Your task to perform on an android device: How do I get to the nearest electronics store? Image 0: 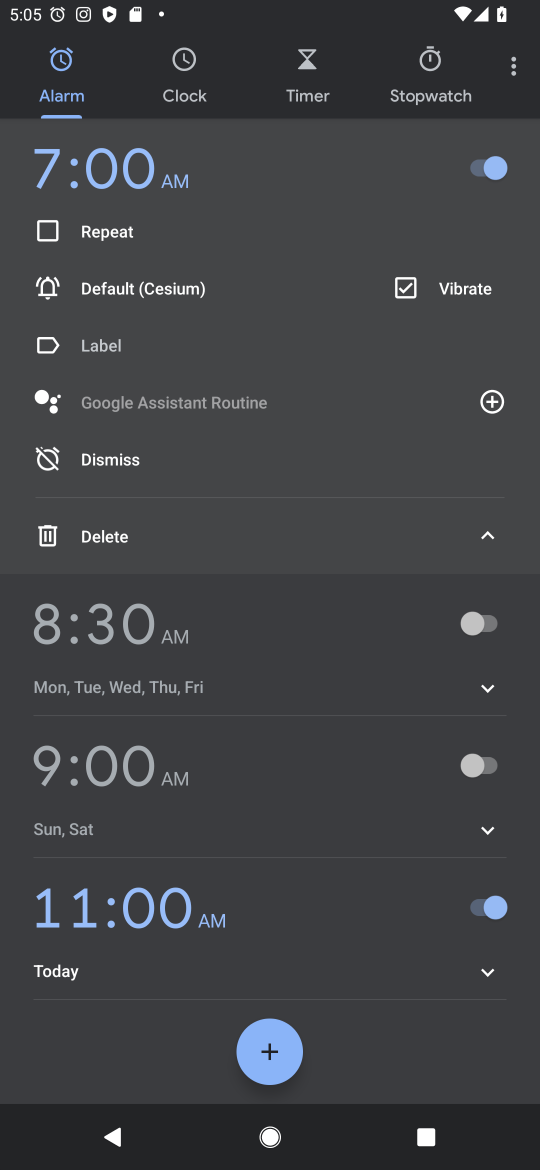
Step 0: press home button
Your task to perform on an android device: How do I get to the nearest electronics store? Image 1: 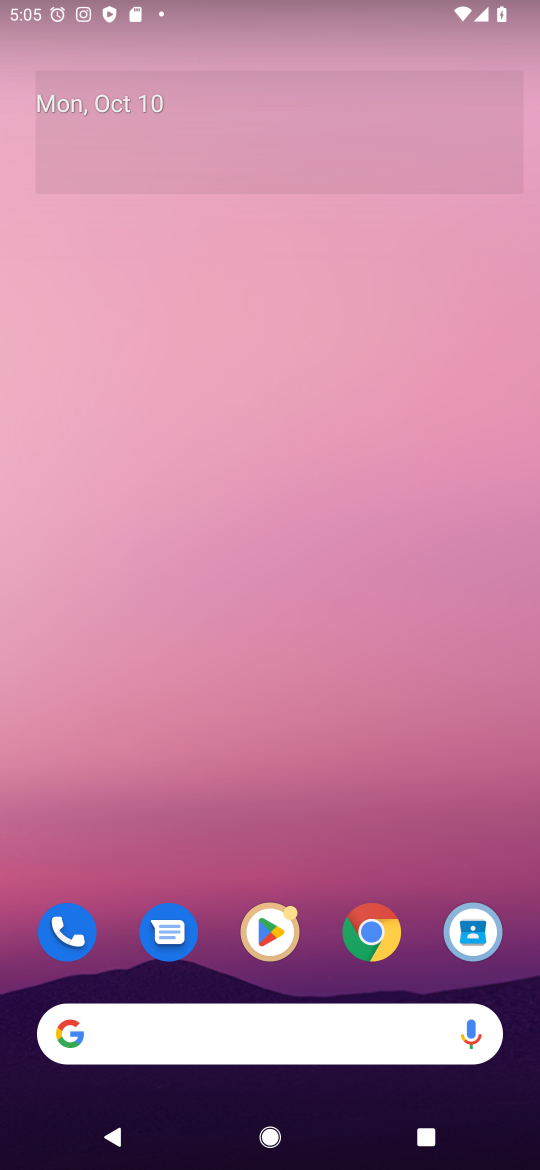
Step 1: click (314, 1026)
Your task to perform on an android device: How do I get to the nearest electronics store? Image 2: 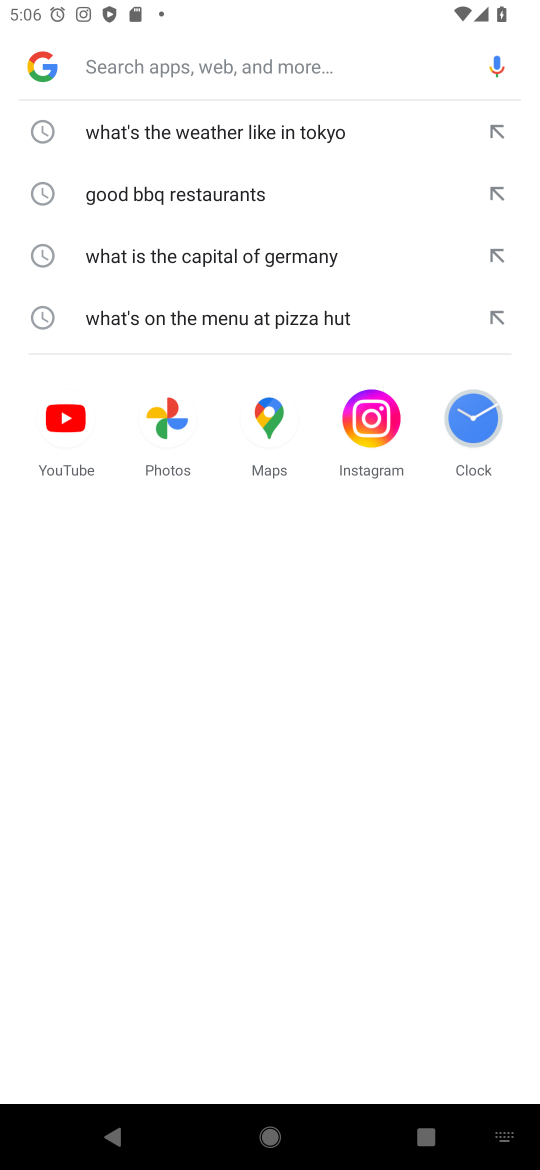
Step 2: press enter
Your task to perform on an android device: How do I get to the nearest electronics store? Image 3: 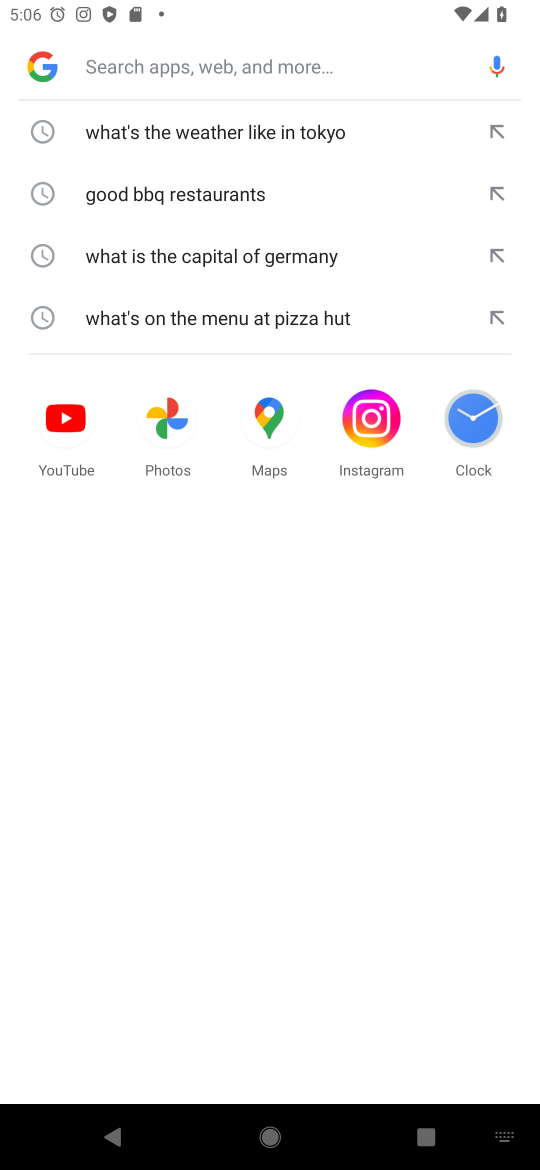
Step 3: type "How do I get to the nearest electronics store"
Your task to perform on an android device: How do I get to the nearest electronics store? Image 4: 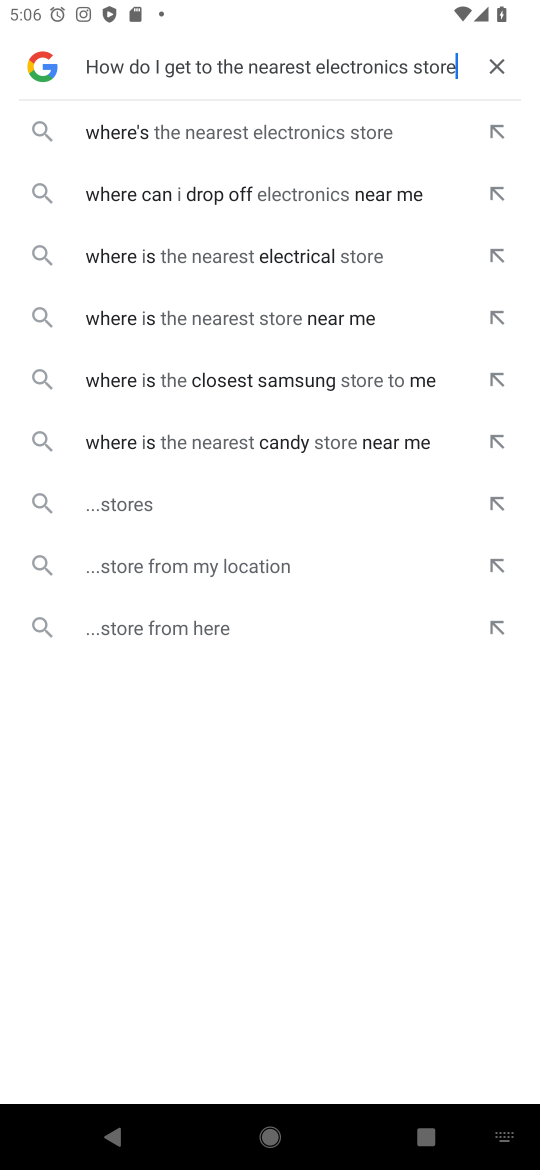
Step 4: press enter
Your task to perform on an android device: How do I get to the nearest electronics store? Image 5: 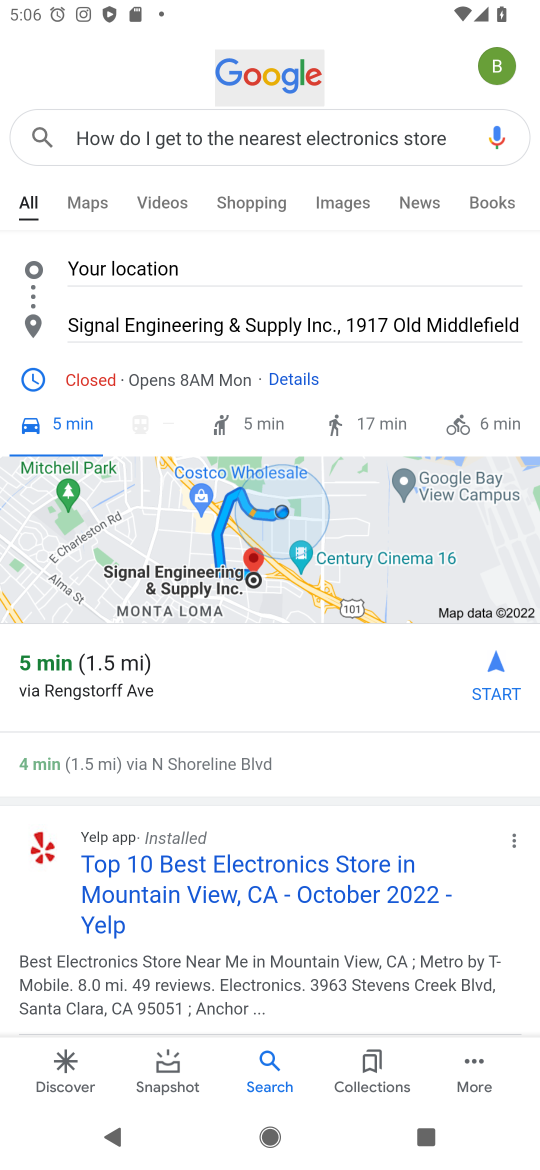
Step 5: task complete